Your task to perform on an android device: Do I have any events this weekend? Image 0: 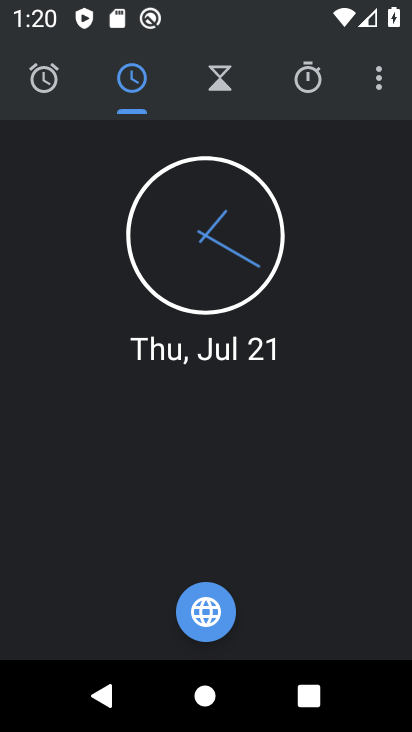
Step 0: press back button
Your task to perform on an android device: Do I have any events this weekend? Image 1: 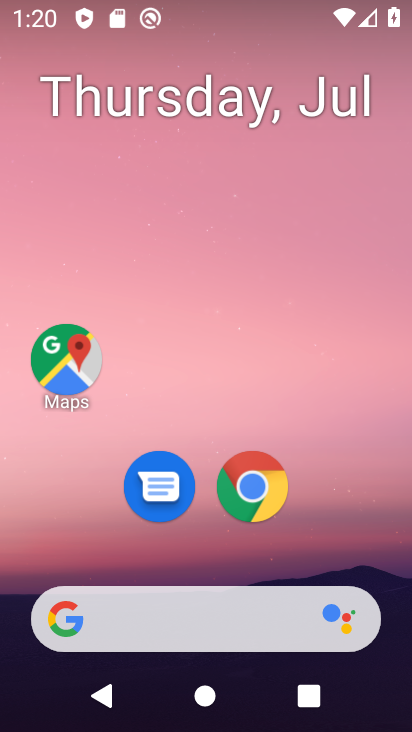
Step 1: drag from (200, 542) to (257, 0)
Your task to perform on an android device: Do I have any events this weekend? Image 2: 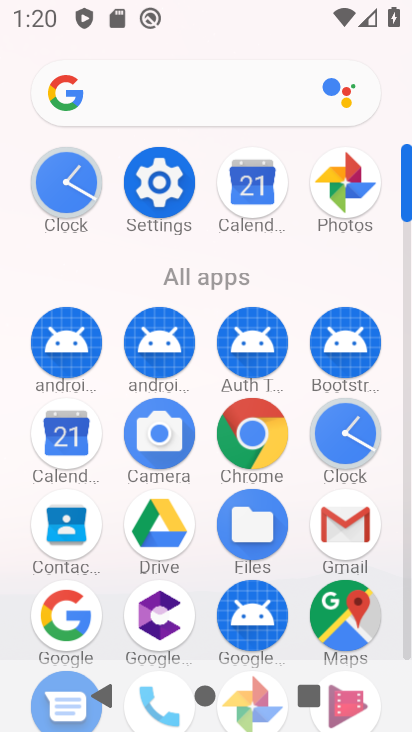
Step 2: click (71, 442)
Your task to perform on an android device: Do I have any events this weekend? Image 3: 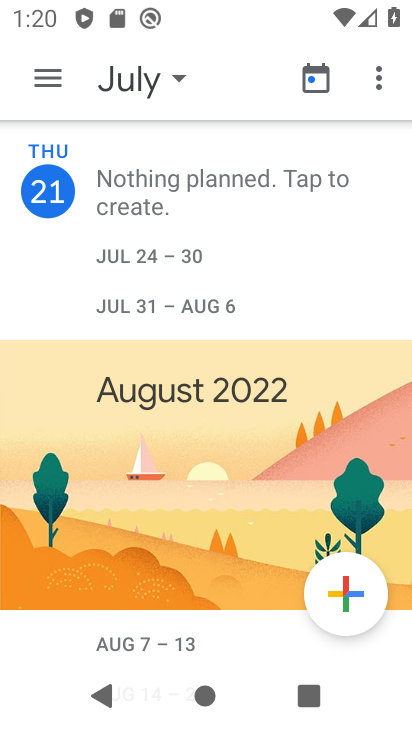
Step 3: click (145, 76)
Your task to perform on an android device: Do I have any events this weekend? Image 4: 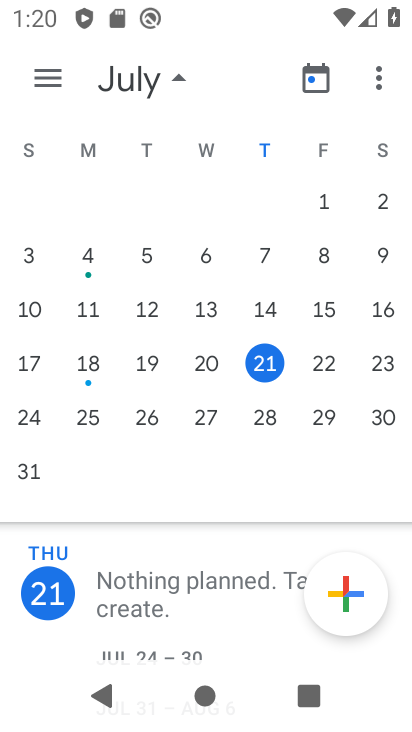
Step 4: click (374, 365)
Your task to perform on an android device: Do I have any events this weekend? Image 5: 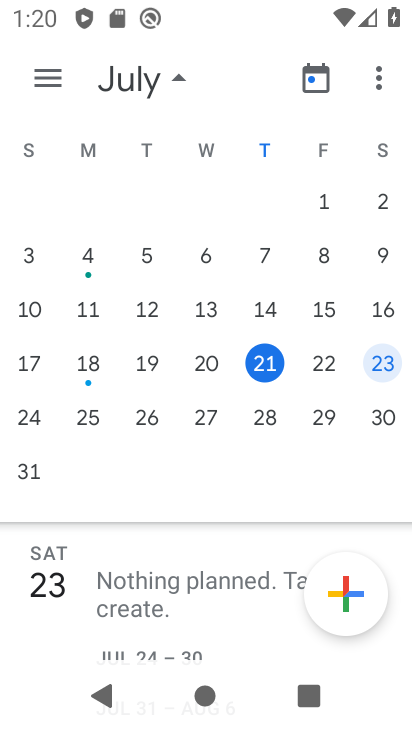
Step 5: task complete